Your task to perform on an android device: manage bookmarks in the chrome app Image 0: 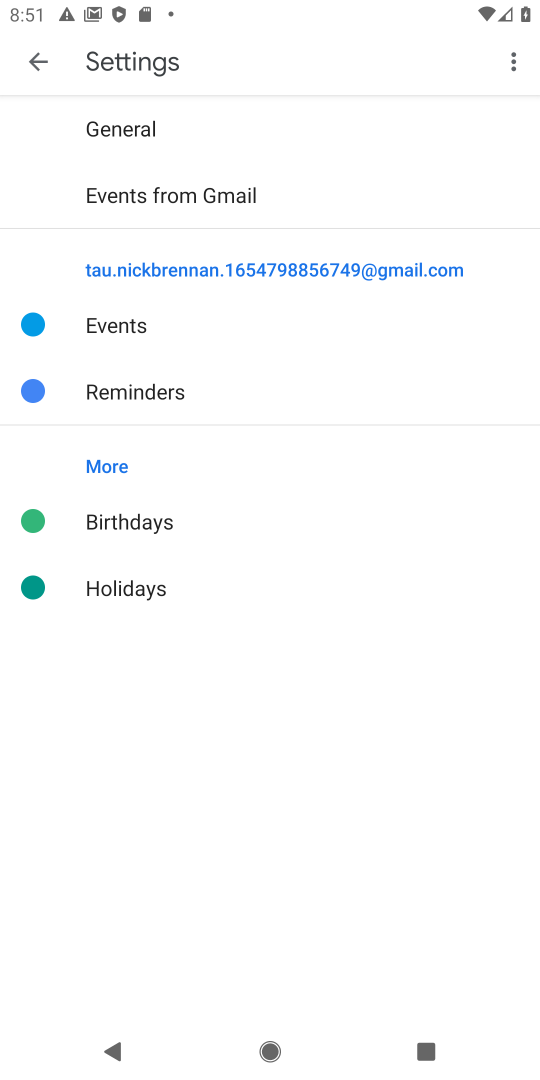
Step 0: press home button
Your task to perform on an android device: manage bookmarks in the chrome app Image 1: 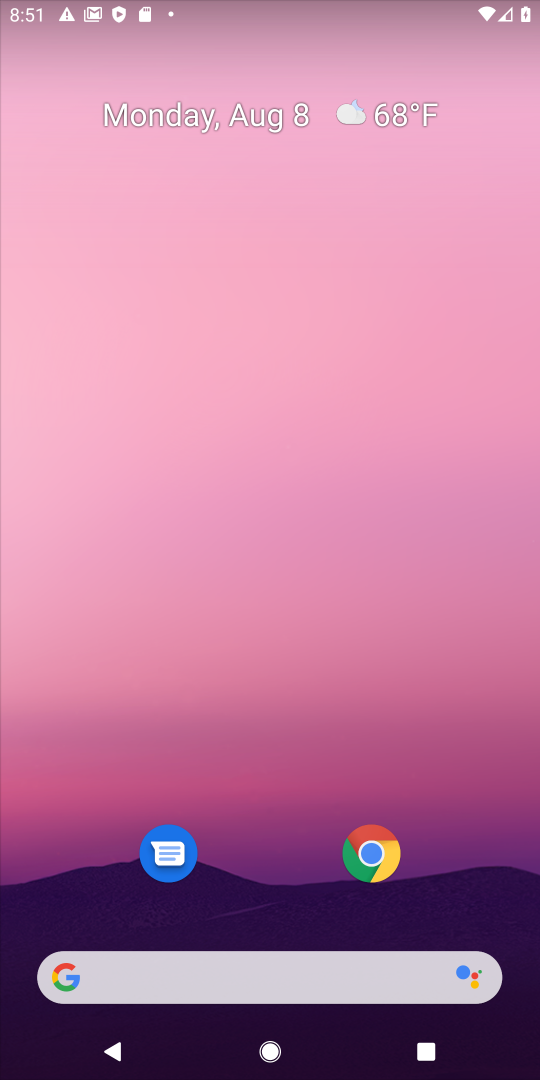
Step 1: drag from (324, 870) to (349, 349)
Your task to perform on an android device: manage bookmarks in the chrome app Image 2: 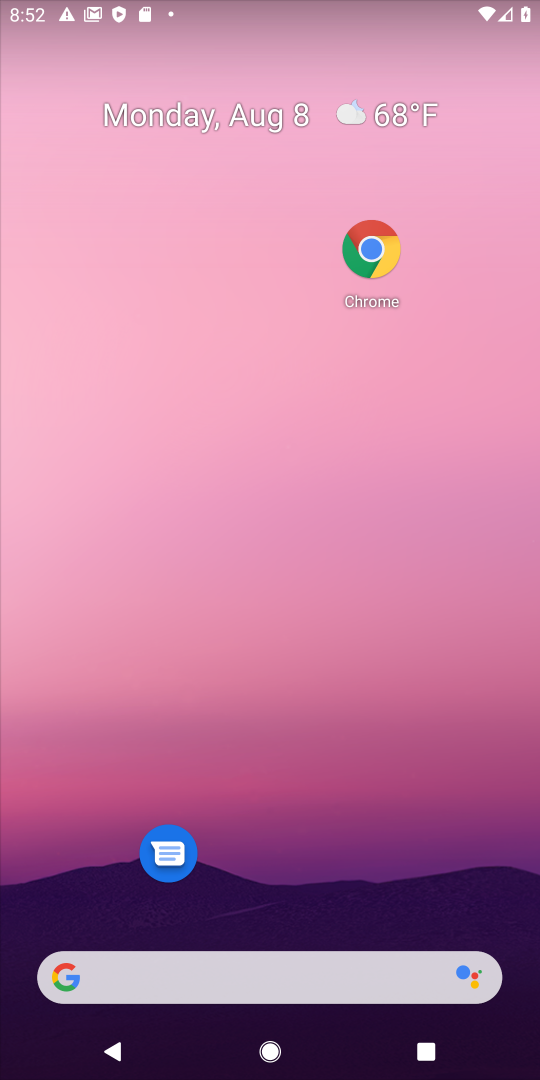
Step 2: drag from (492, 1008) to (304, 445)
Your task to perform on an android device: manage bookmarks in the chrome app Image 3: 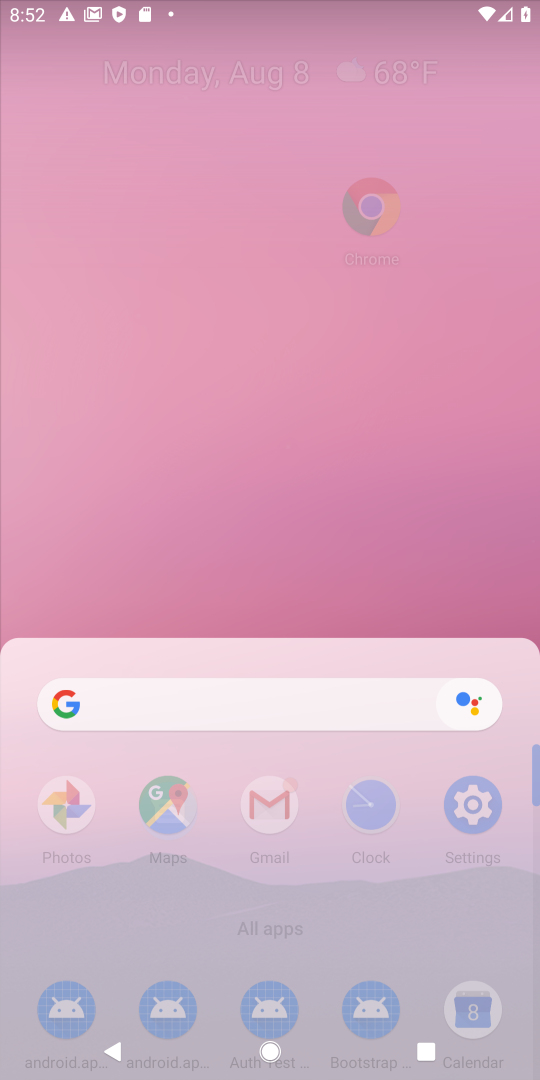
Step 3: click (230, 160)
Your task to perform on an android device: manage bookmarks in the chrome app Image 4: 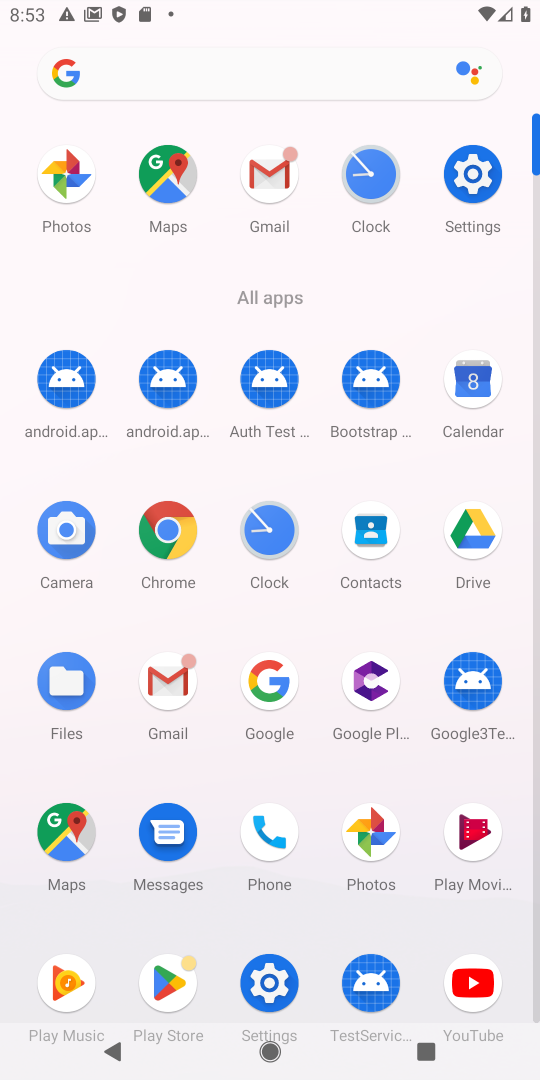
Step 4: click (142, 521)
Your task to perform on an android device: manage bookmarks in the chrome app Image 5: 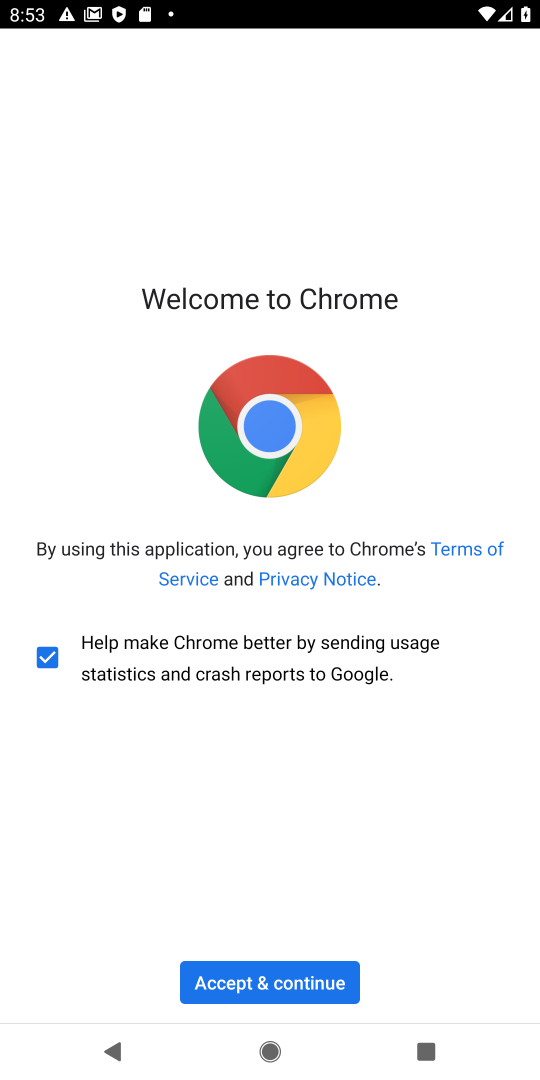
Step 5: click (298, 980)
Your task to perform on an android device: manage bookmarks in the chrome app Image 6: 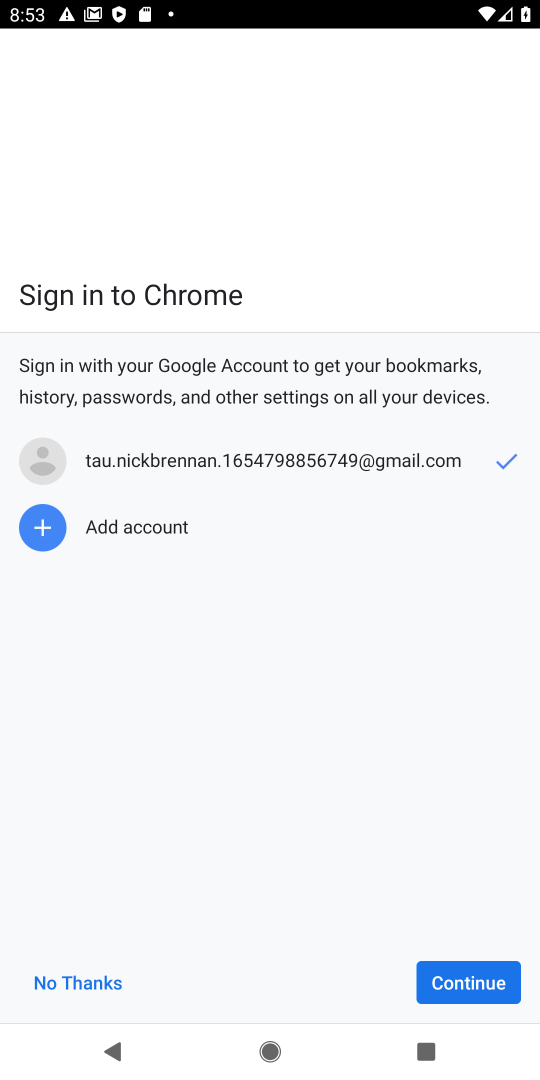
Step 6: click (486, 987)
Your task to perform on an android device: manage bookmarks in the chrome app Image 7: 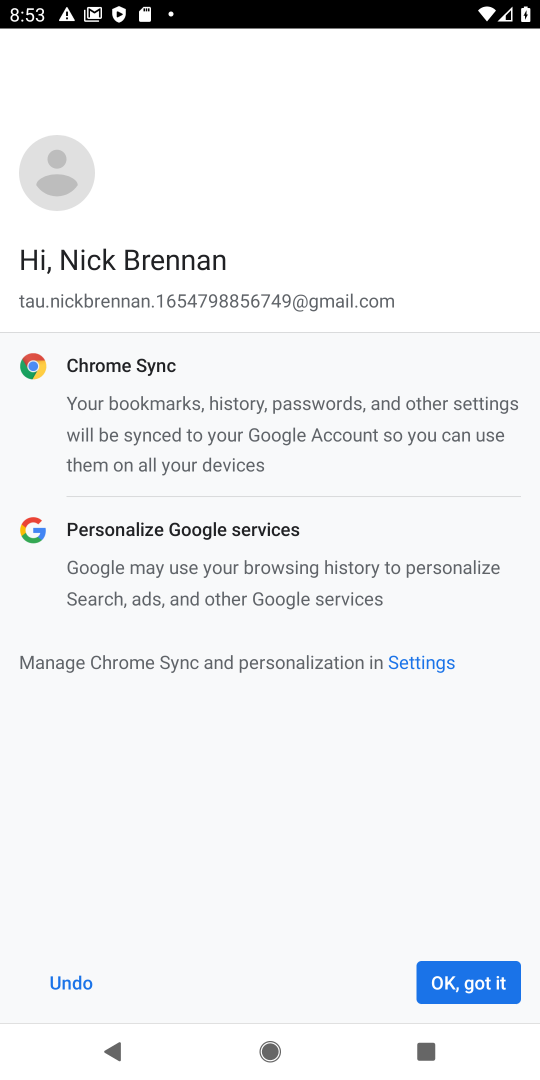
Step 7: click (486, 987)
Your task to perform on an android device: manage bookmarks in the chrome app Image 8: 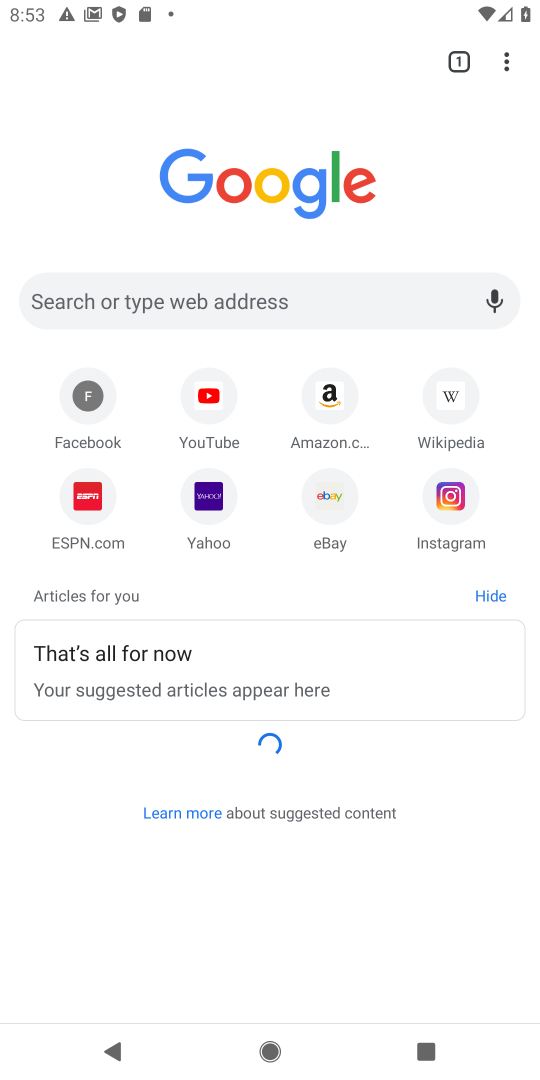
Step 8: click (506, 48)
Your task to perform on an android device: manage bookmarks in the chrome app Image 9: 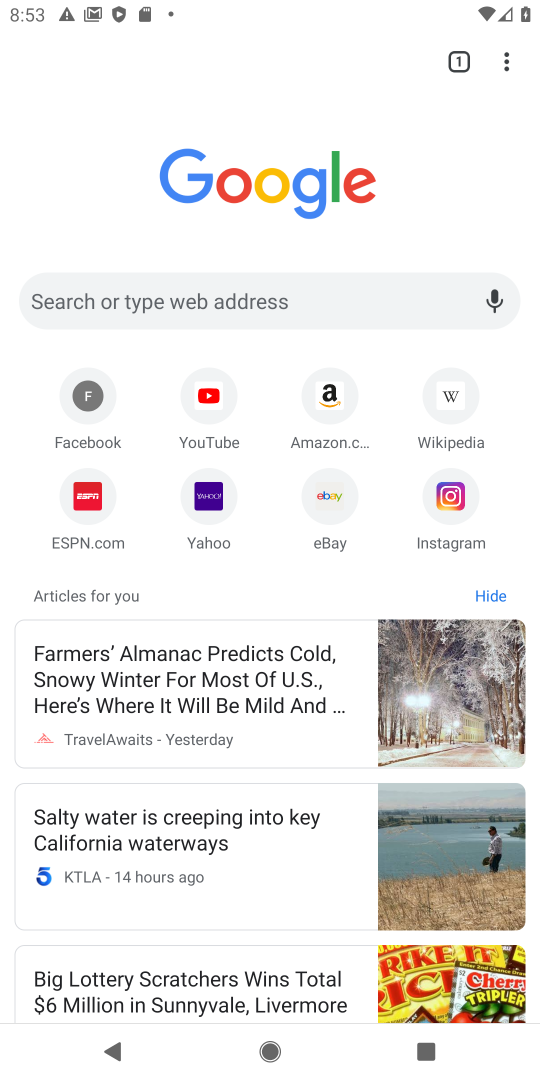
Step 9: click (513, 55)
Your task to perform on an android device: manage bookmarks in the chrome app Image 10: 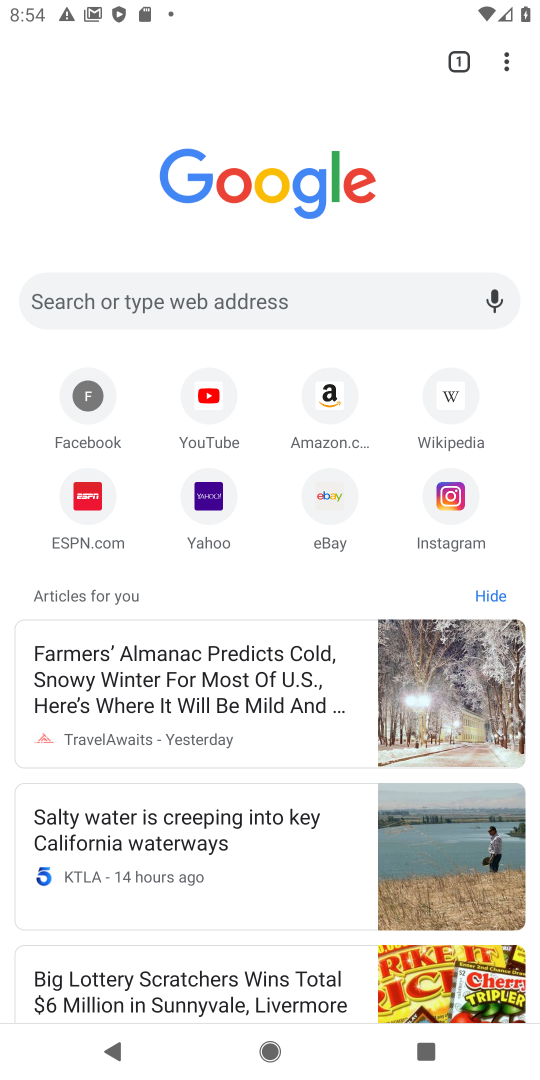
Step 10: task complete